Your task to perform on an android device: Show me recent news Image 0: 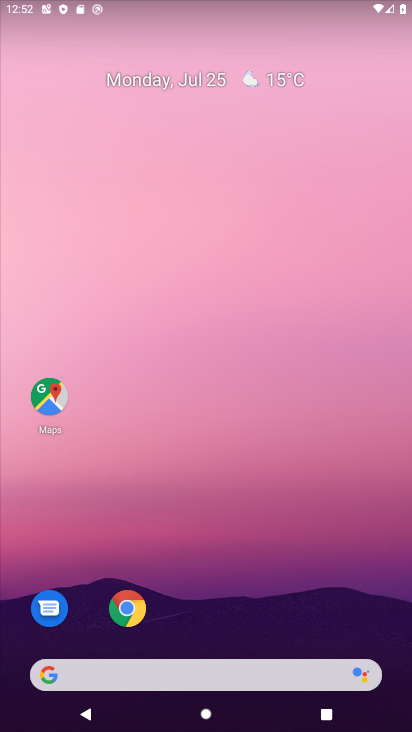
Step 0: drag from (233, 633) to (320, 275)
Your task to perform on an android device: Show me recent news Image 1: 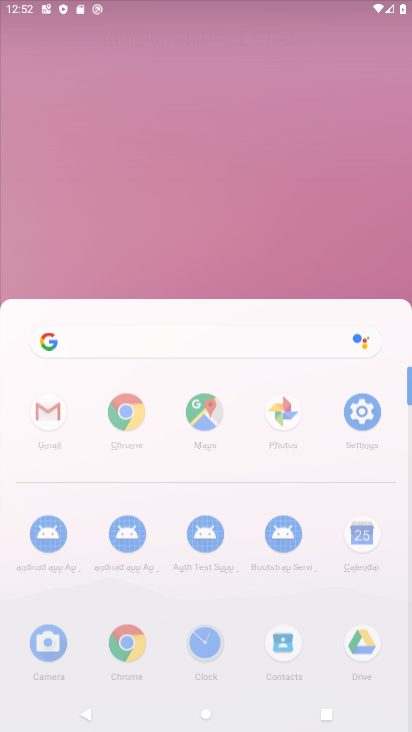
Step 1: drag from (332, 221) to (355, 121)
Your task to perform on an android device: Show me recent news Image 2: 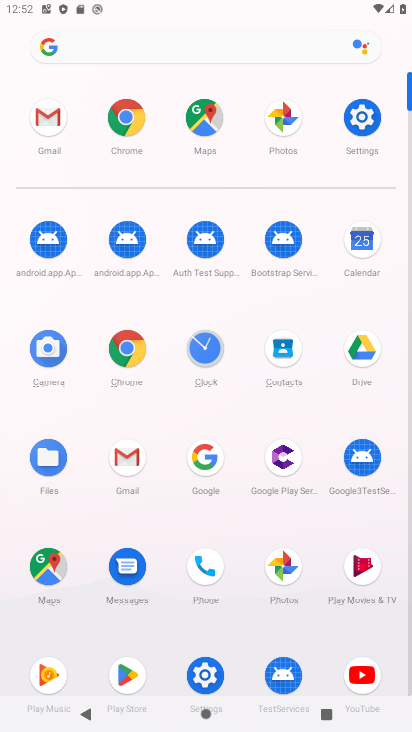
Step 2: click (209, 460)
Your task to perform on an android device: Show me recent news Image 3: 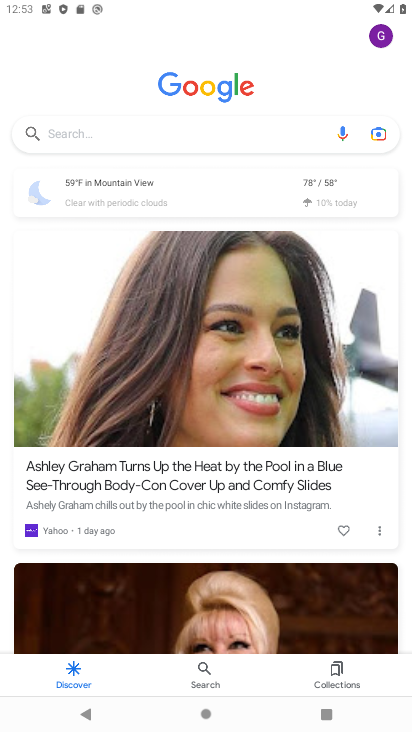
Step 3: task complete